Your task to perform on an android device: turn on wifi Image 0: 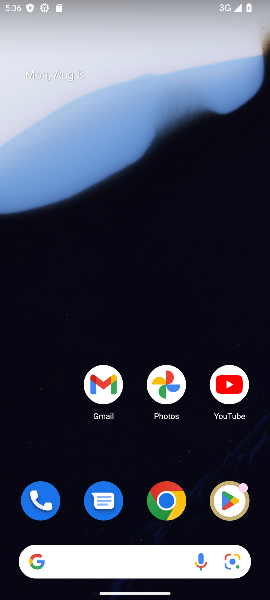
Step 0: drag from (33, 589) to (139, 245)
Your task to perform on an android device: turn on wifi Image 1: 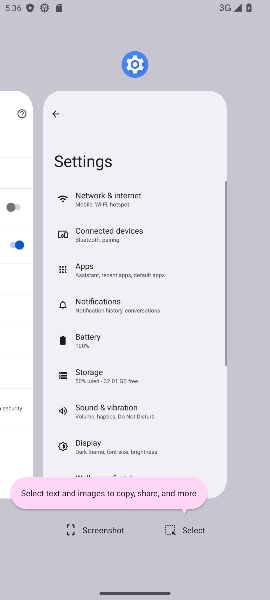
Step 1: click (139, 245)
Your task to perform on an android device: turn on wifi Image 2: 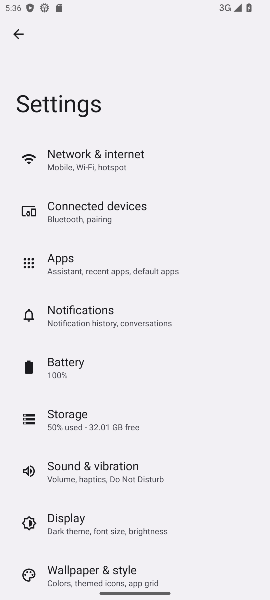
Step 2: click (88, 156)
Your task to perform on an android device: turn on wifi Image 3: 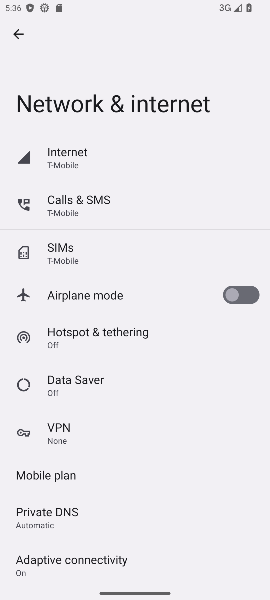
Step 3: click (88, 156)
Your task to perform on an android device: turn on wifi Image 4: 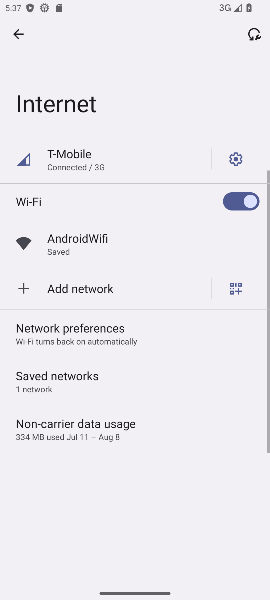
Step 4: task complete